Your task to perform on an android device: turn on the 24-hour format for clock Image 0: 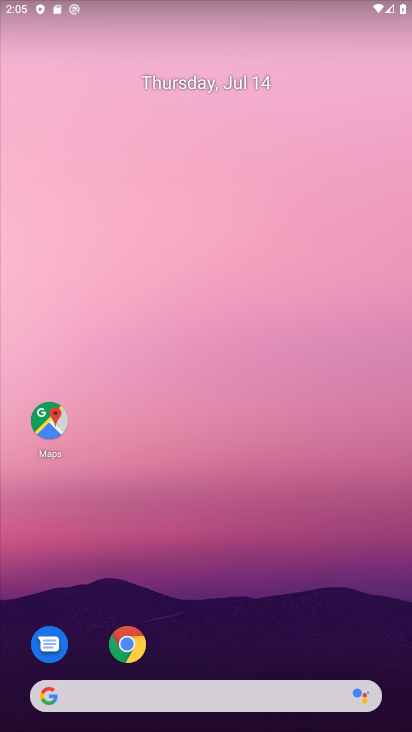
Step 0: drag from (236, 592) to (237, 0)
Your task to perform on an android device: turn on the 24-hour format for clock Image 1: 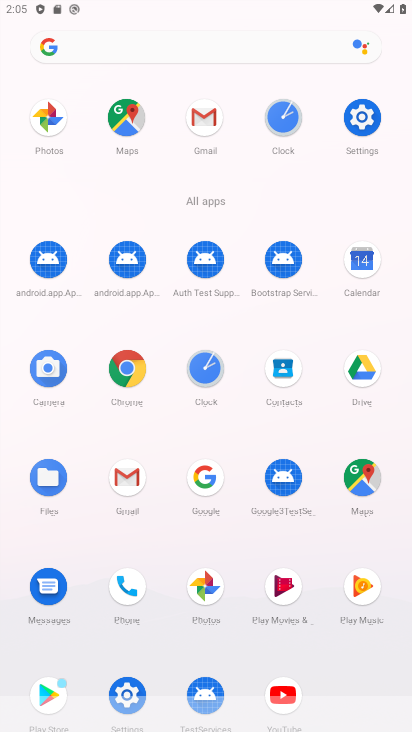
Step 1: click (215, 381)
Your task to perform on an android device: turn on the 24-hour format for clock Image 2: 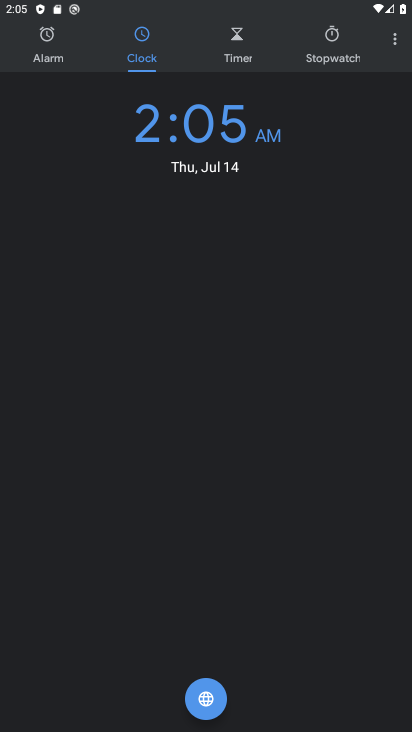
Step 2: click (391, 46)
Your task to perform on an android device: turn on the 24-hour format for clock Image 3: 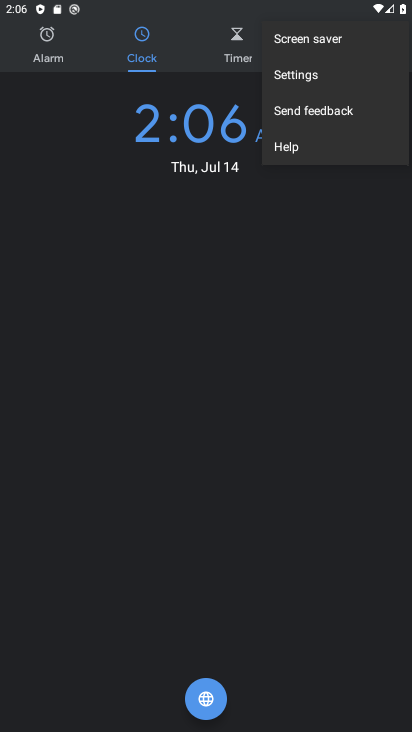
Step 3: click (317, 77)
Your task to perform on an android device: turn on the 24-hour format for clock Image 4: 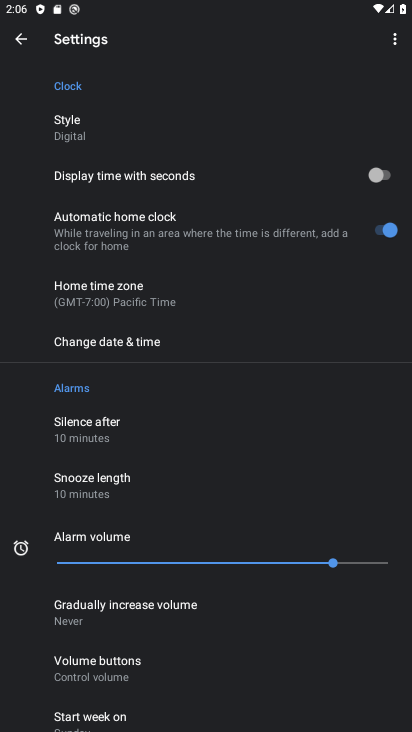
Step 4: click (160, 353)
Your task to perform on an android device: turn on the 24-hour format for clock Image 5: 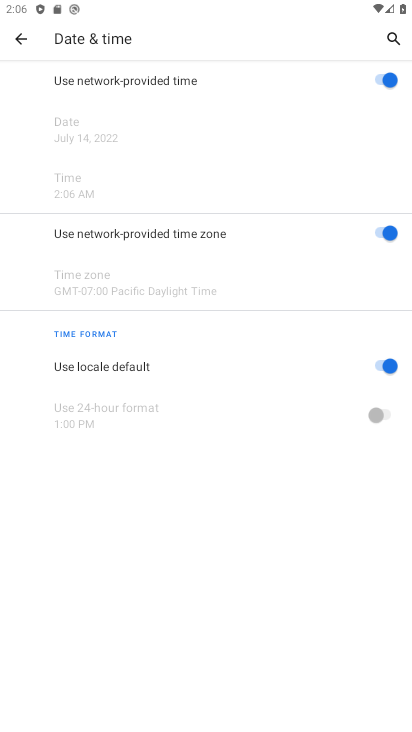
Step 5: click (388, 361)
Your task to perform on an android device: turn on the 24-hour format for clock Image 6: 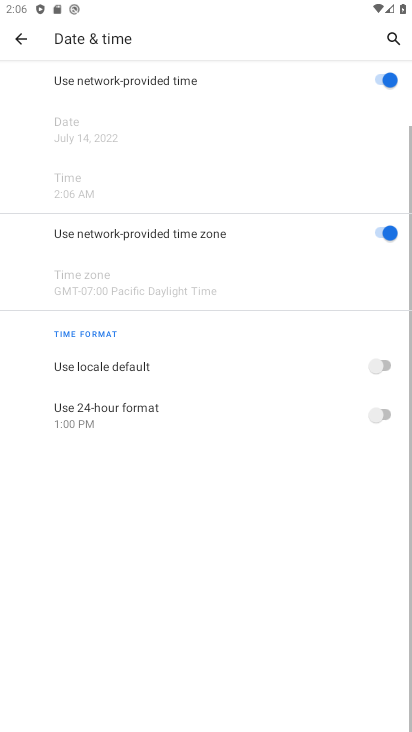
Step 6: click (380, 415)
Your task to perform on an android device: turn on the 24-hour format for clock Image 7: 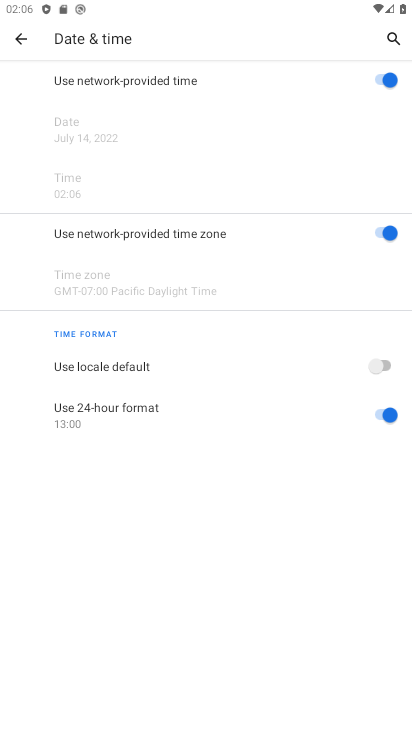
Step 7: task complete